Your task to perform on an android device: open a bookmark in the chrome app Image 0: 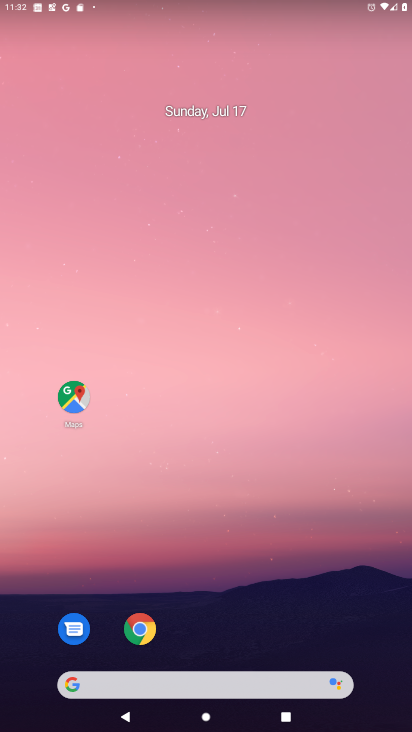
Step 0: click (143, 629)
Your task to perform on an android device: open a bookmark in the chrome app Image 1: 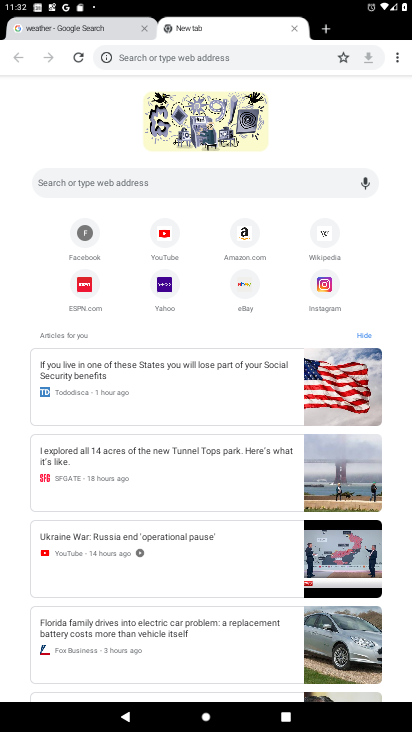
Step 1: click (399, 57)
Your task to perform on an android device: open a bookmark in the chrome app Image 2: 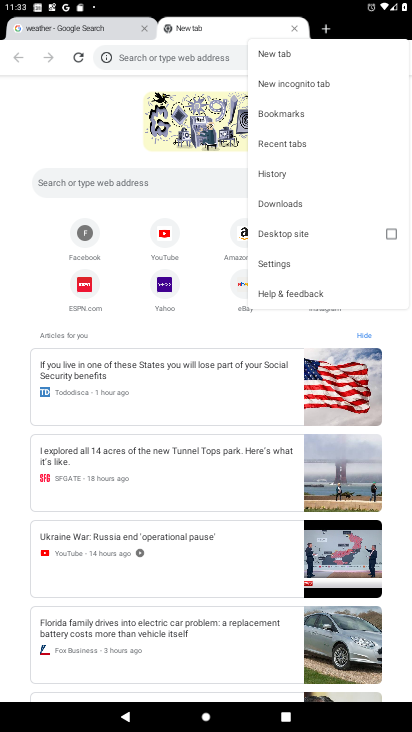
Step 2: click (294, 116)
Your task to perform on an android device: open a bookmark in the chrome app Image 3: 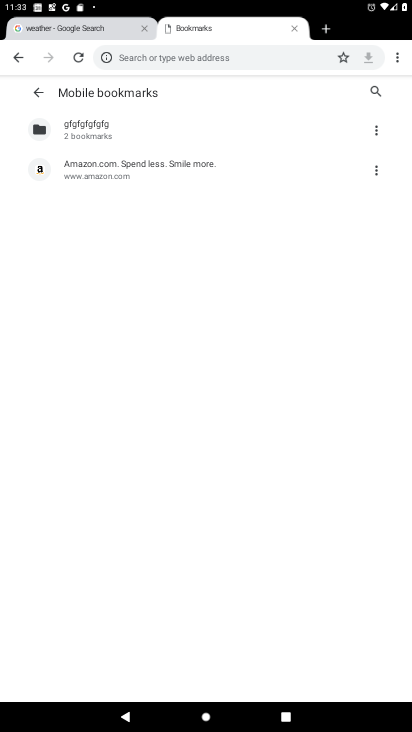
Step 3: task complete